Your task to perform on an android device: Show me productivity apps on the Play Store Image 0: 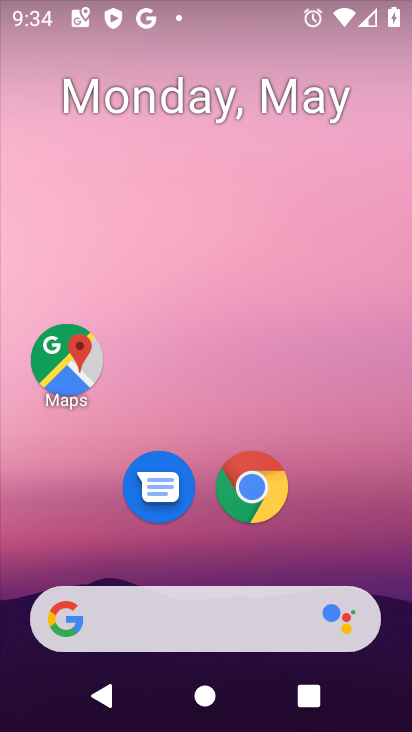
Step 0: drag from (191, 578) to (220, 200)
Your task to perform on an android device: Show me productivity apps on the Play Store Image 1: 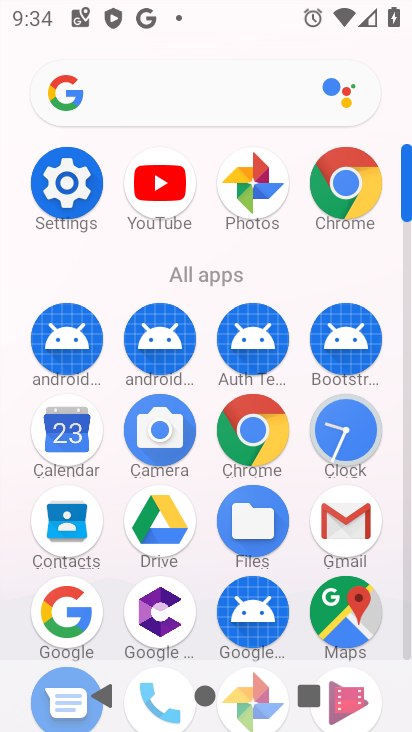
Step 1: drag from (190, 577) to (223, 100)
Your task to perform on an android device: Show me productivity apps on the Play Store Image 2: 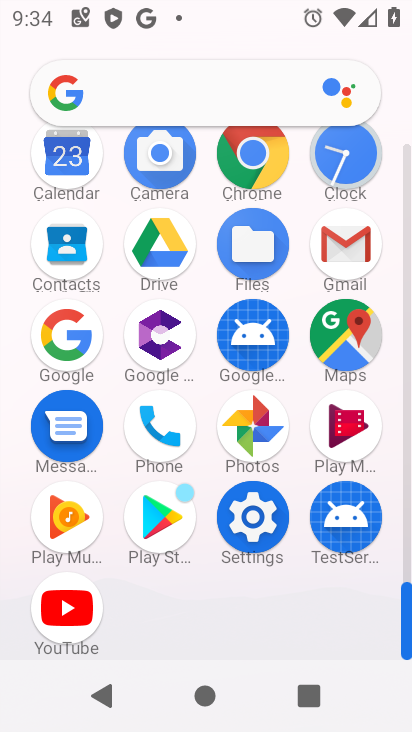
Step 2: click (125, 527)
Your task to perform on an android device: Show me productivity apps on the Play Store Image 3: 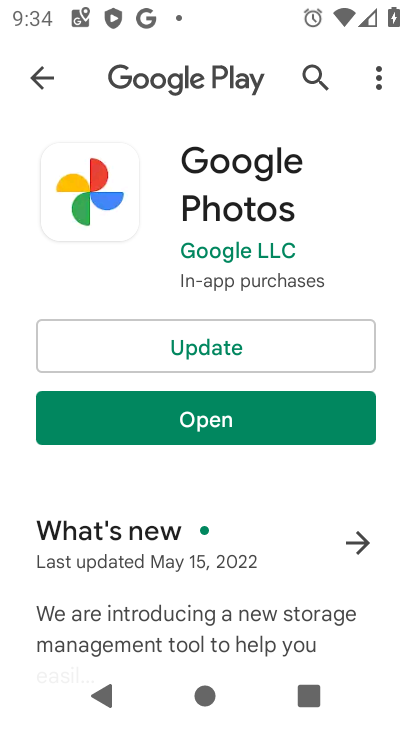
Step 3: click (23, 67)
Your task to perform on an android device: Show me productivity apps on the Play Store Image 4: 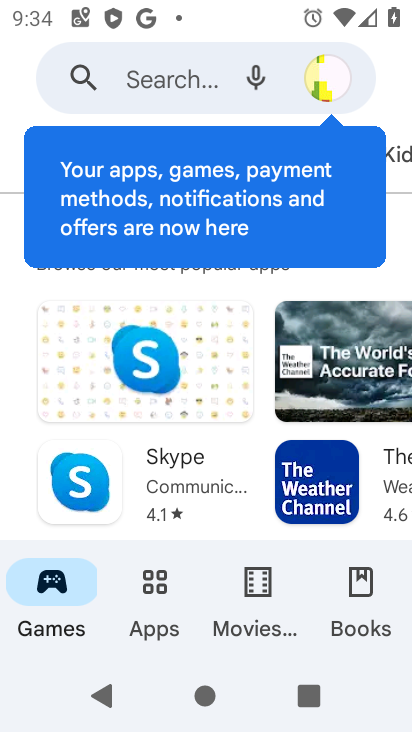
Step 4: click (177, 605)
Your task to perform on an android device: Show me productivity apps on the Play Store Image 5: 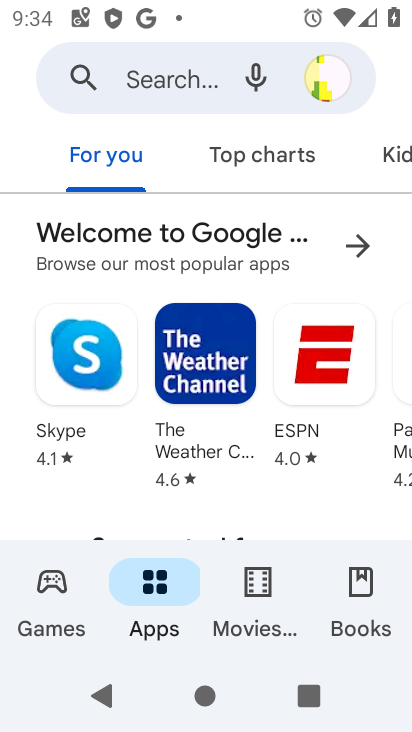
Step 5: click (395, 158)
Your task to perform on an android device: Show me productivity apps on the Play Store Image 6: 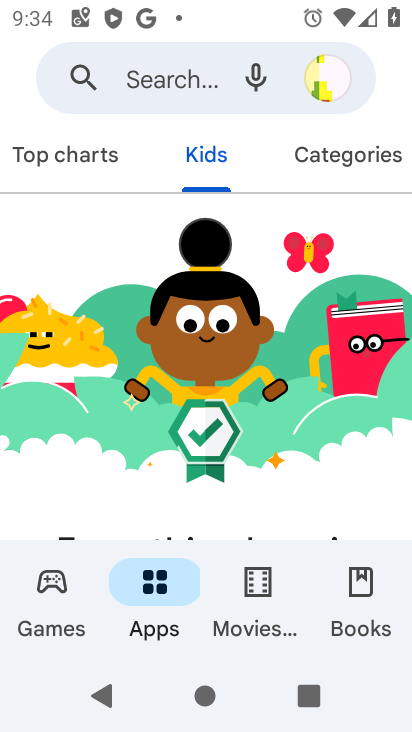
Step 6: click (395, 158)
Your task to perform on an android device: Show me productivity apps on the Play Store Image 7: 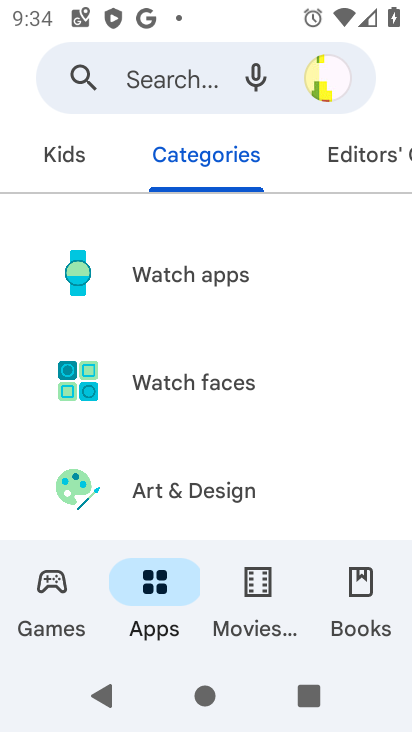
Step 7: drag from (158, 467) to (153, 174)
Your task to perform on an android device: Show me productivity apps on the Play Store Image 8: 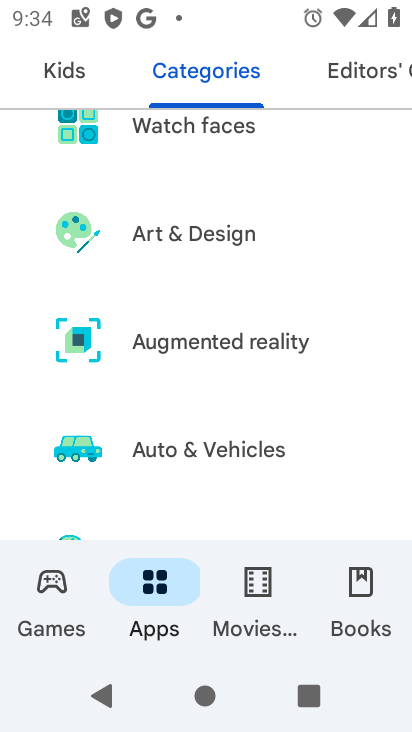
Step 8: drag from (114, 479) to (233, 24)
Your task to perform on an android device: Show me productivity apps on the Play Store Image 9: 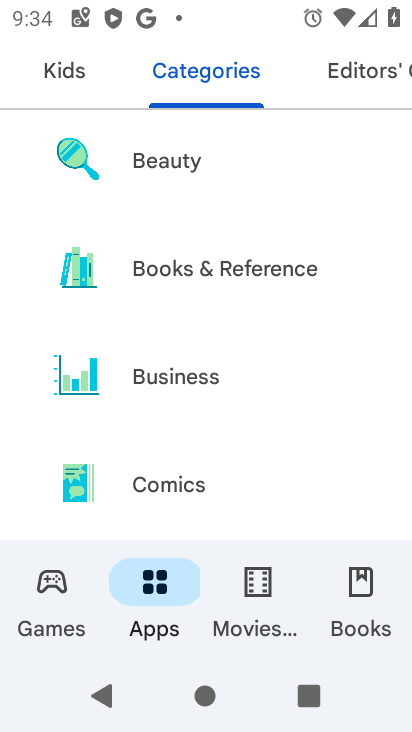
Step 9: drag from (132, 425) to (184, 168)
Your task to perform on an android device: Show me productivity apps on the Play Store Image 10: 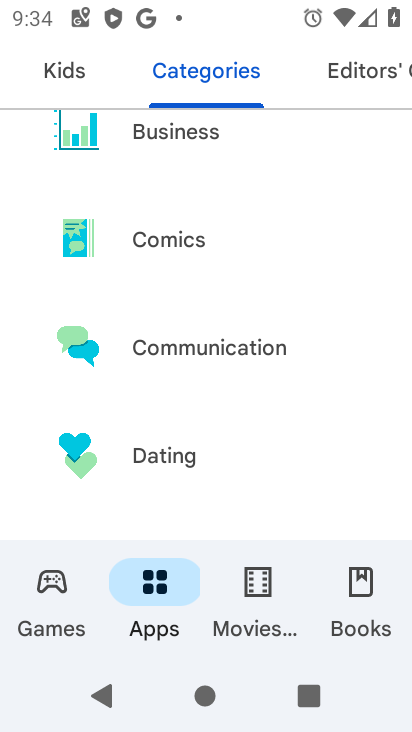
Step 10: drag from (127, 522) to (127, 131)
Your task to perform on an android device: Show me productivity apps on the Play Store Image 11: 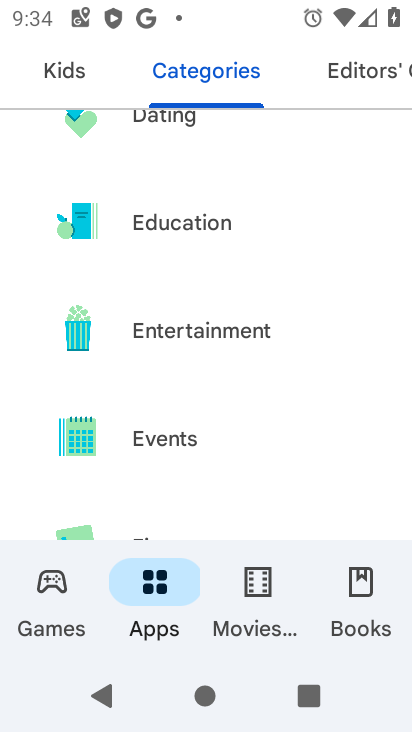
Step 11: drag from (203, 505) to (221, 144)
Your task to perform on an android device: Show me productivity apps on the Play Store Image 12: 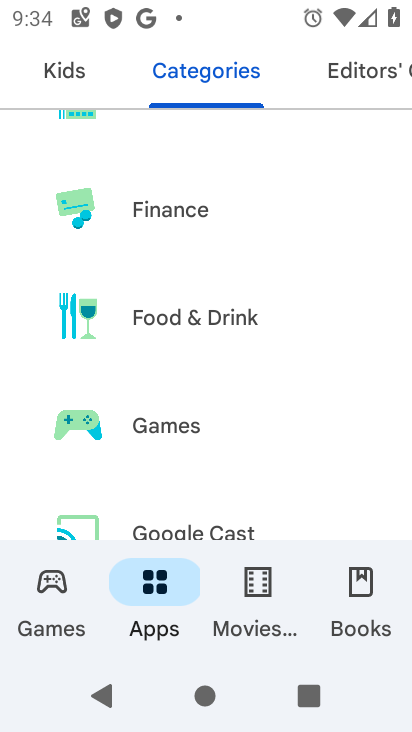
Step 12: drag from (164, 508) to (180, 52)
Your task to perform on an android device: Show me productivity apps on the Play Store Image 13: 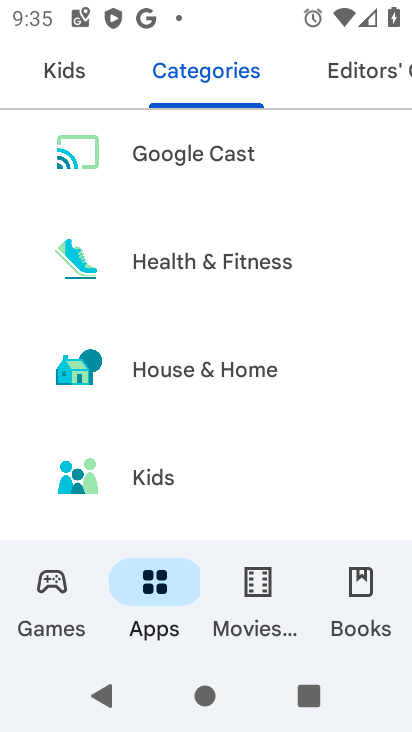
Step 13: drag from (150, 506) to (131, 82)
Your task to perform on an android device: Show me productivity apps on the Play Store Image 14: 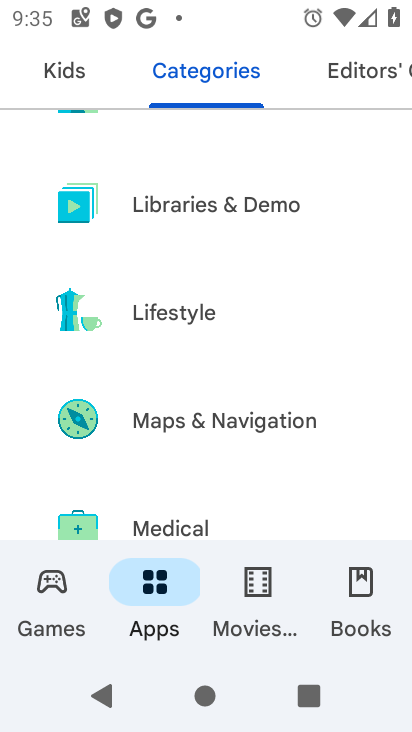
Step 14: drag from (149, 507) to (170, 195)
Your task to perform on an android device: Show me productivity apps on the Play Store Image 15: 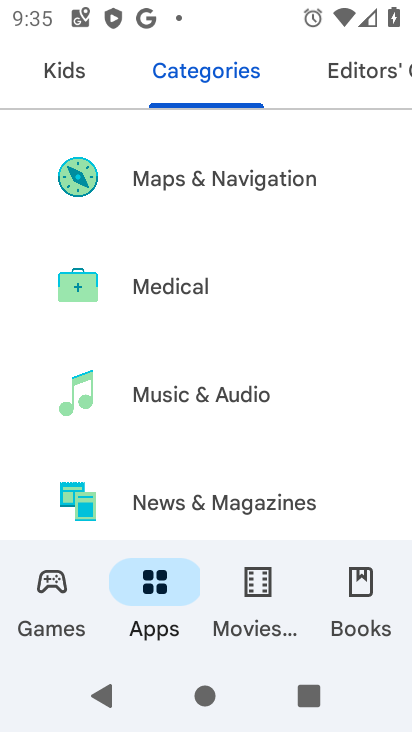
Step 15: drag from (135, 474) to (150, 117)
Your task to perform on an android device: Show me productivity apps on the Play Store Image 16: 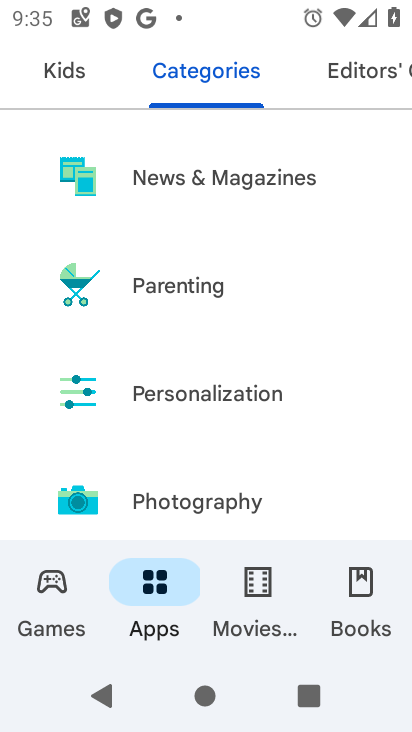
Step 16: drag from (123, 442) to (174, 99)
Your task to perform on an android device: Show me productivity apps on the Play Store Image 17: 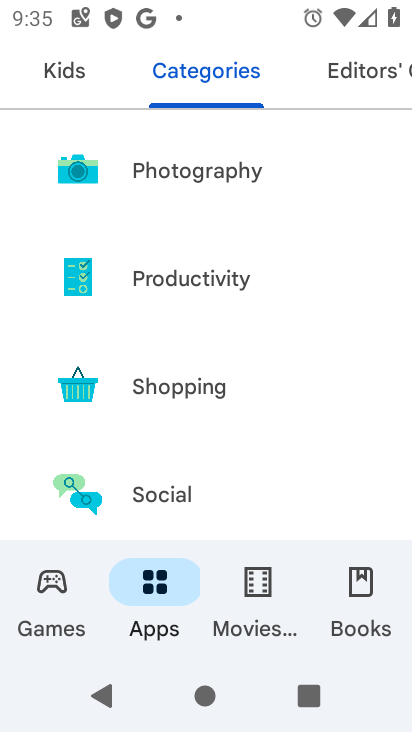
Step 17: click (187, 277)
Your task to perform on an android device: Show me productivity apps on the Play Store Image 18: 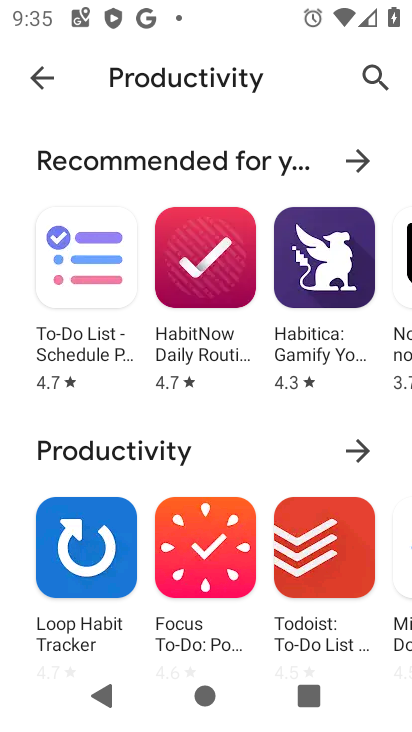
Step 18: task complete